Your task to perform on an android device: Show me popular games on the Play Store Image 0: 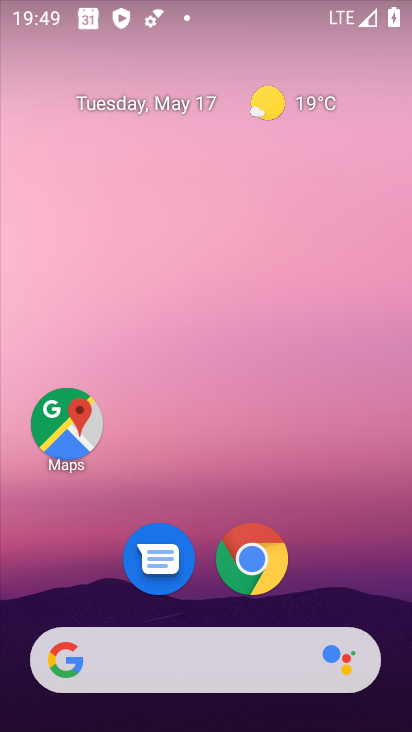
Step 0: drag from (190, 619) to (239, 110)
Your task to perform on an android device: Show me popular games on the Play Store Image 1: 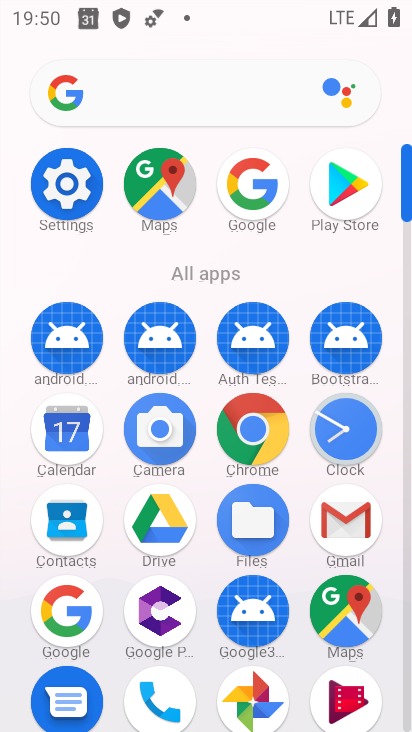
Step 1: click (327, 194)
Your task to perform on an android device: Show me popular games on the Play Store Image 2: 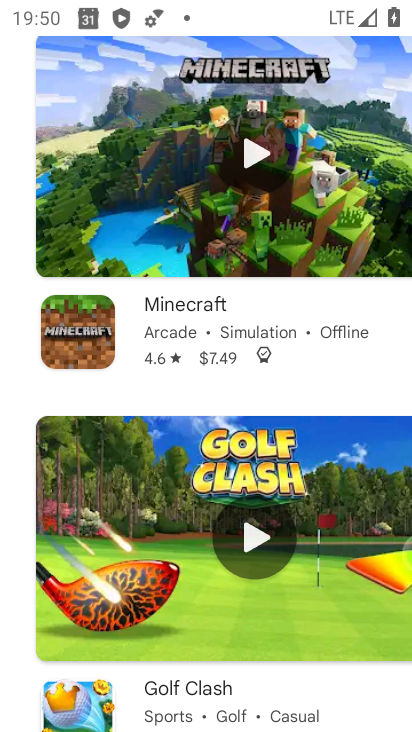
Step 2: task complete